Your task to perform on an android device: clear all cookies in the chrome app Image 0: 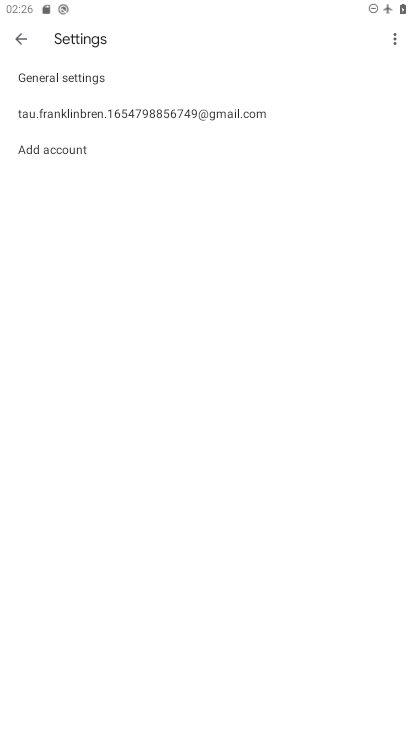
Step 0: press home button
Your task to perform on an android device: clear all cookies in the chrome app Image 1: 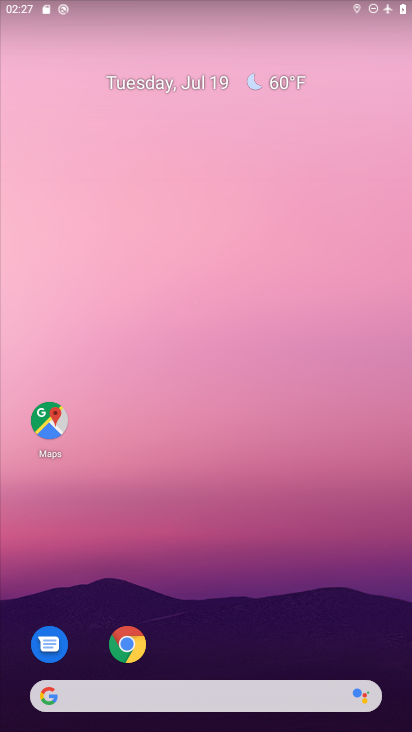
Step 1: drag from (236, 671) to (230, 117)
Your task to perform on an android device: clear all cookies in the chrome app Image 2: 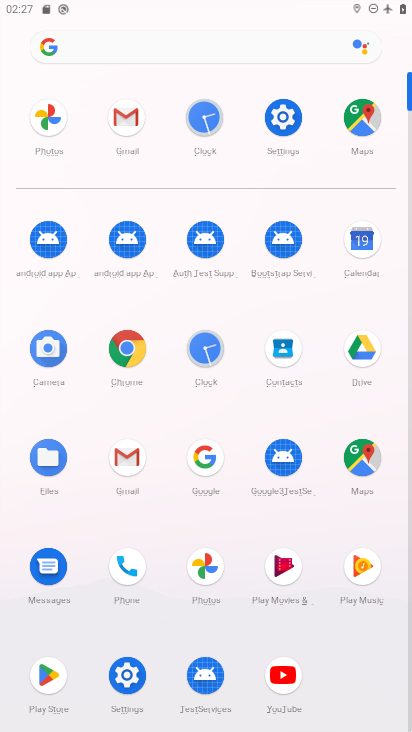
Step 2: click (112, 348)
Your task to perform on an android device: clear all cookies in the chrome app Image 3: 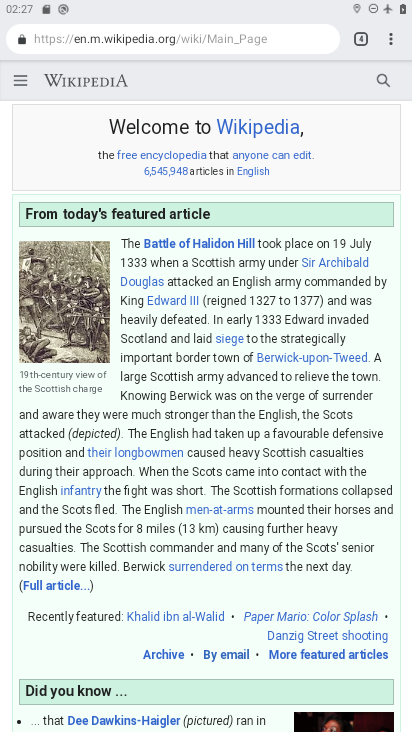
Step 3: click (389, 38)
Your task to perform on an android device: clear all cookies in the chrome app Image 4: 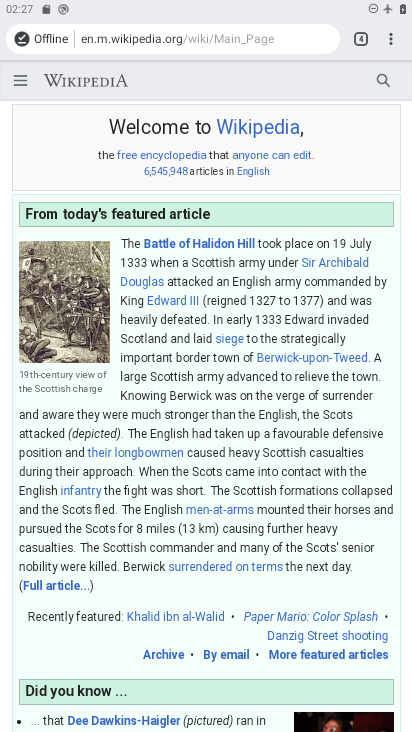
Step 4: drag from (388, 41) to (256, 435)
Your task to perform on an android device: clear all cookies in the chrome app Image 5: 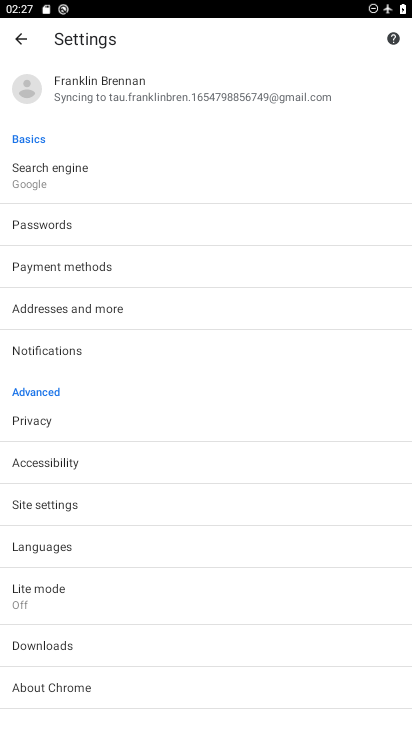
Step 5: click (25, 414)
Your task to perform on an android device: clear all cookies in the chrome app Image 6: 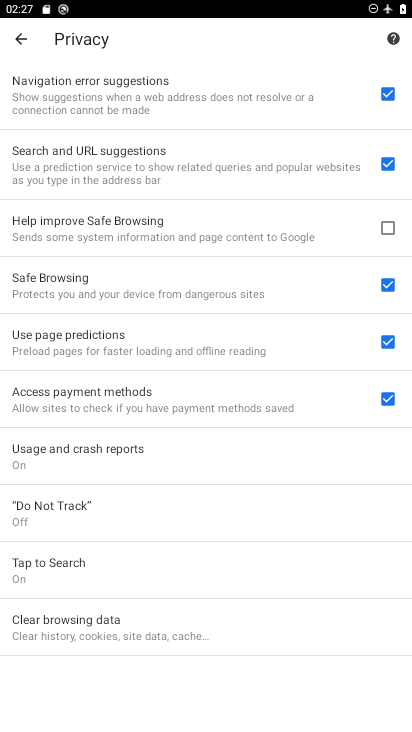
Step 6: click (85, 612)
Your task to perform on an android device: clear all cookies in the chrome app Image 7: 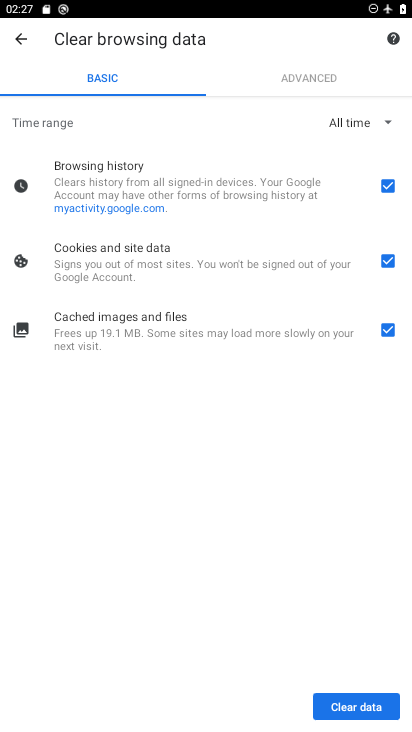
Step 7: click (365, 697)
Your task to perform on an android device: clear all cookies in the chrome app Image 8: 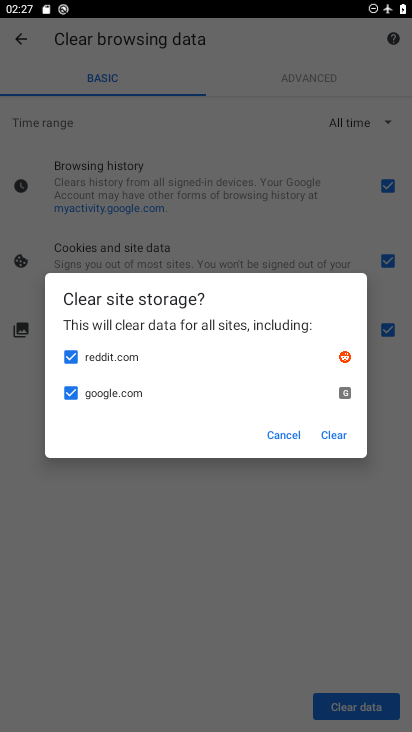
Step 8: click (321, 433)
Your task to perform on an android device: clear all cookies in the chrome app Image 9: 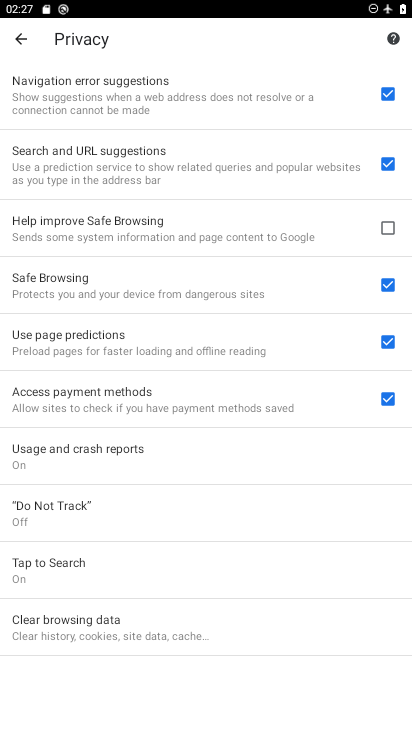
Step 9: task complete